Your task to perform on an android device: open the mobile data screen to see how much data has been used Image 0: 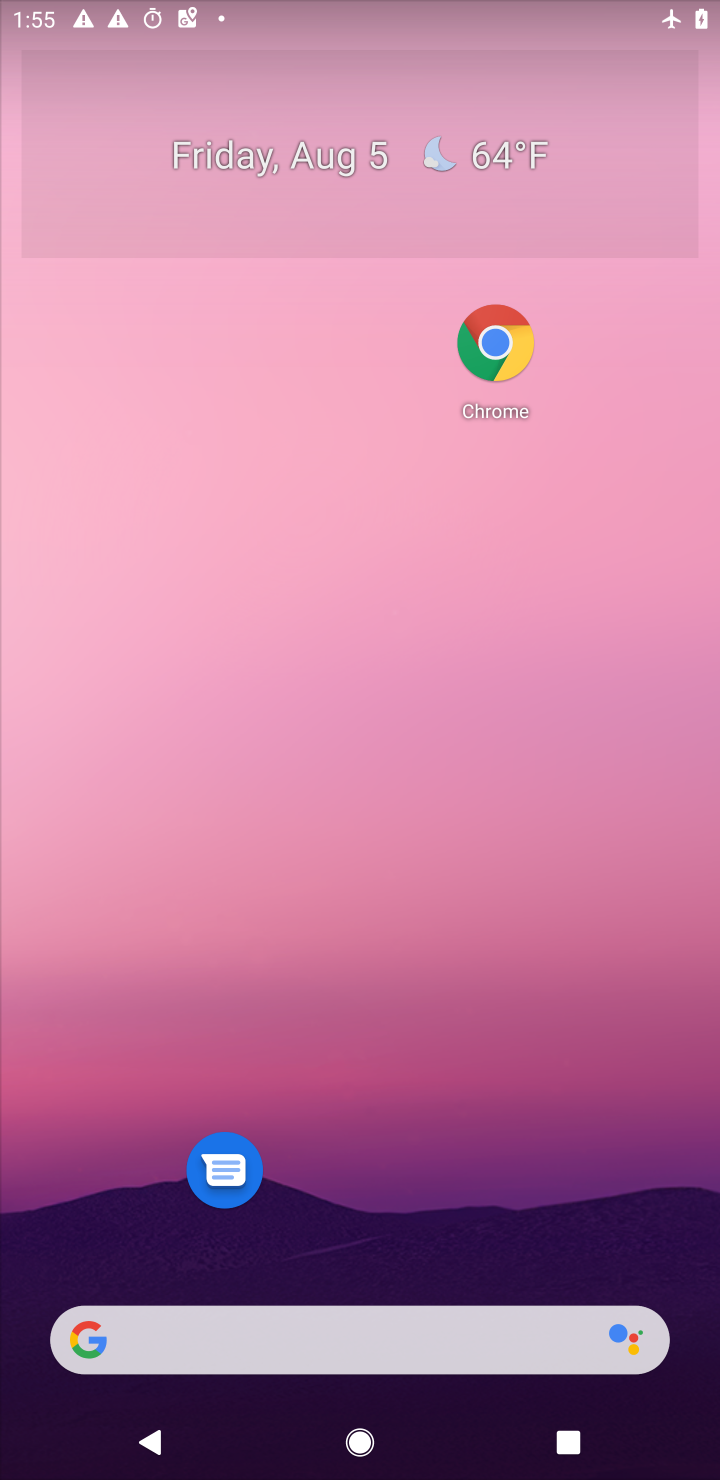
Step 0: drag from (333, 1025) to (344, 69)
Your task to perform on an android device: open the mobile data screen to see how much data has been used Image 1: 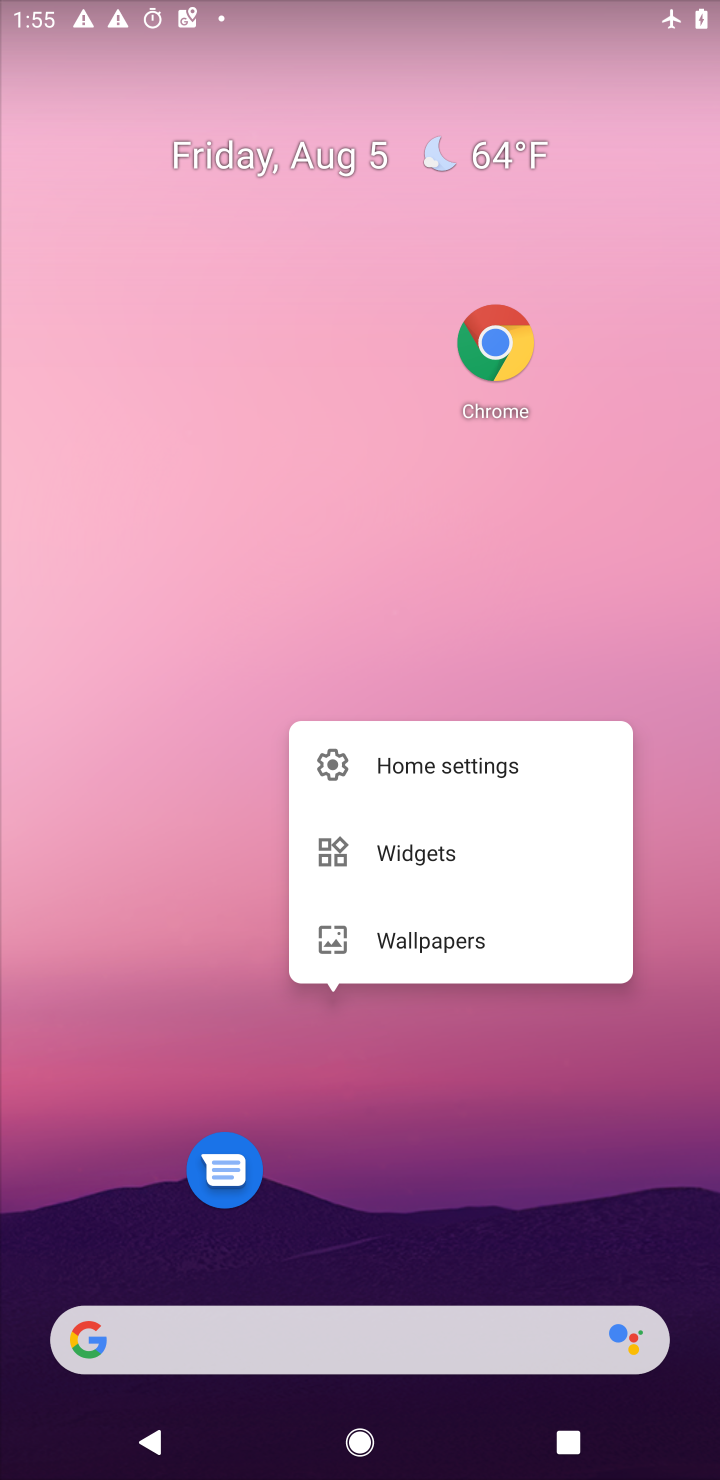
Step 1: click (421, 1178)
Your task to perform on an android device: open the mobile data screen to see how much data has been used Image 2: 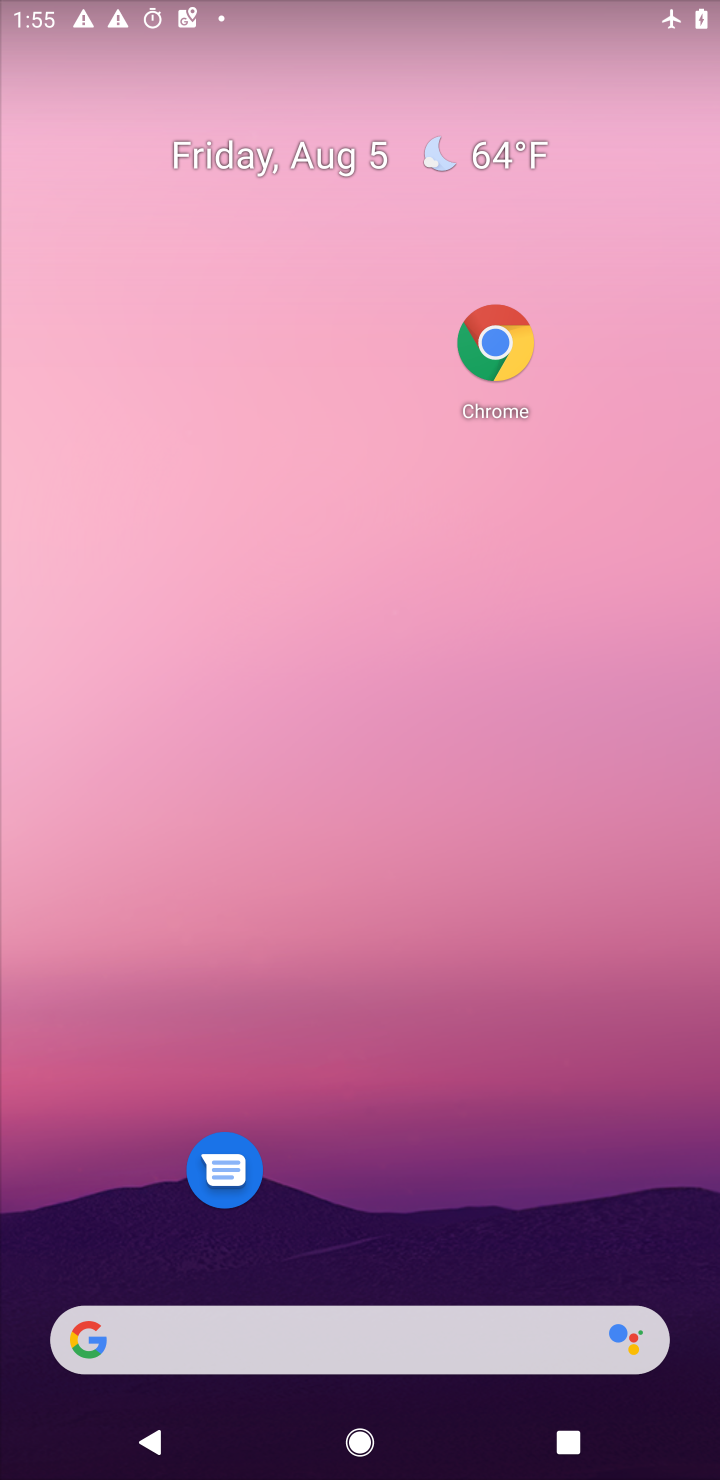
Step 2: drag from (335, 1135) to (361, 1)
Your task to perform on an android device: open the mobile data screen to see how much data has been used Image 3: 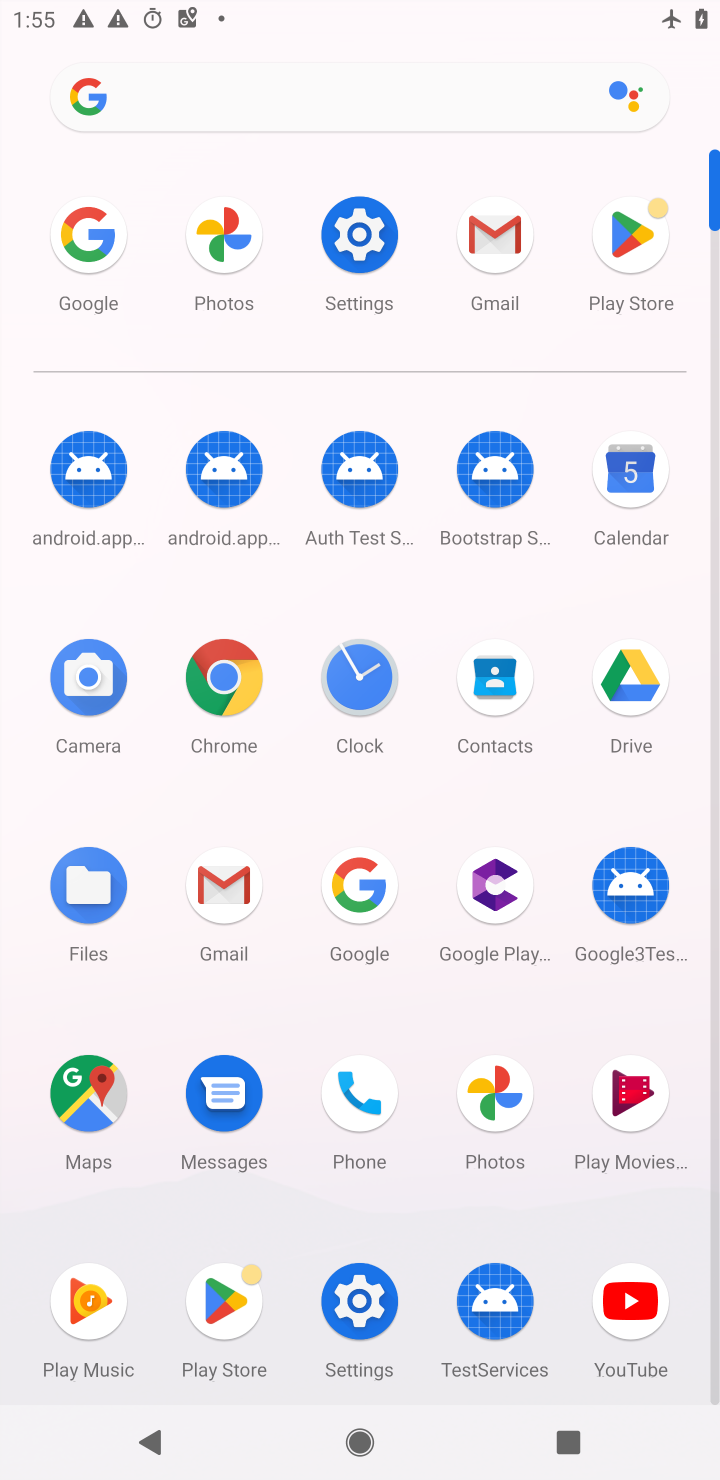
Step 3: click (371, 273)
Your task to perform on an android device: open the mobile data screen to see how much data has been used Image 4: 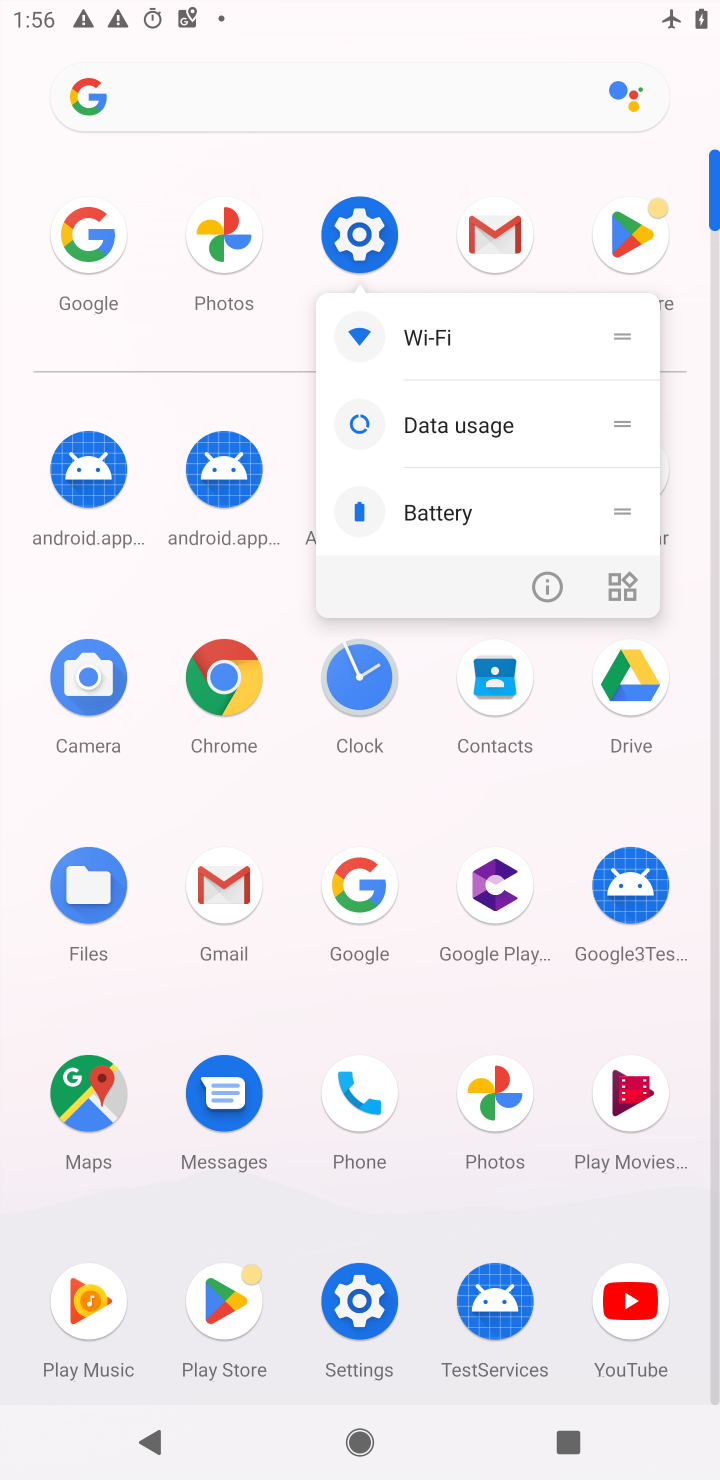
Step 4: click (373, 237)
Your task to perform on an android device: open the mobile data screen to see how much data has been used Image 5: 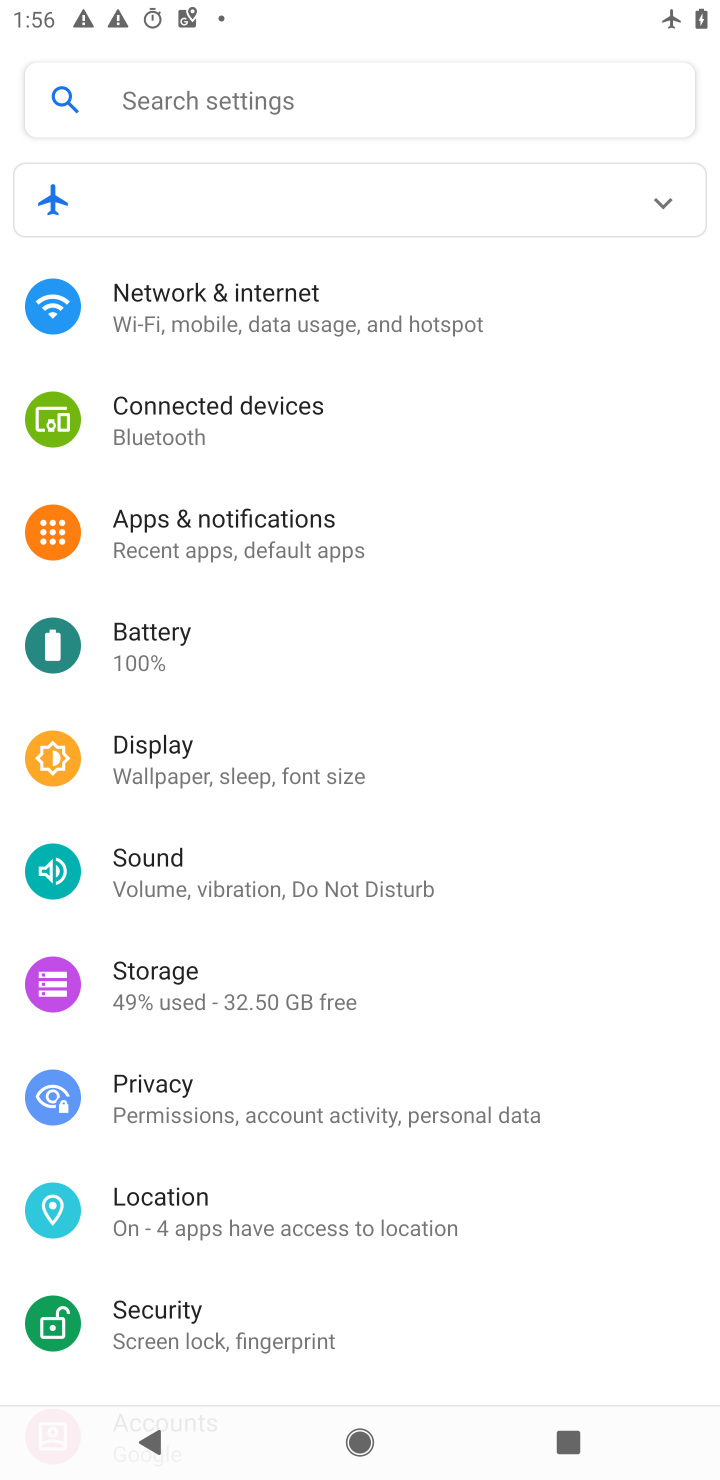
Step 5: click (268, 325)
Your task to perform on an android device: open the mobile data screen to see how much data has been used Image 6: 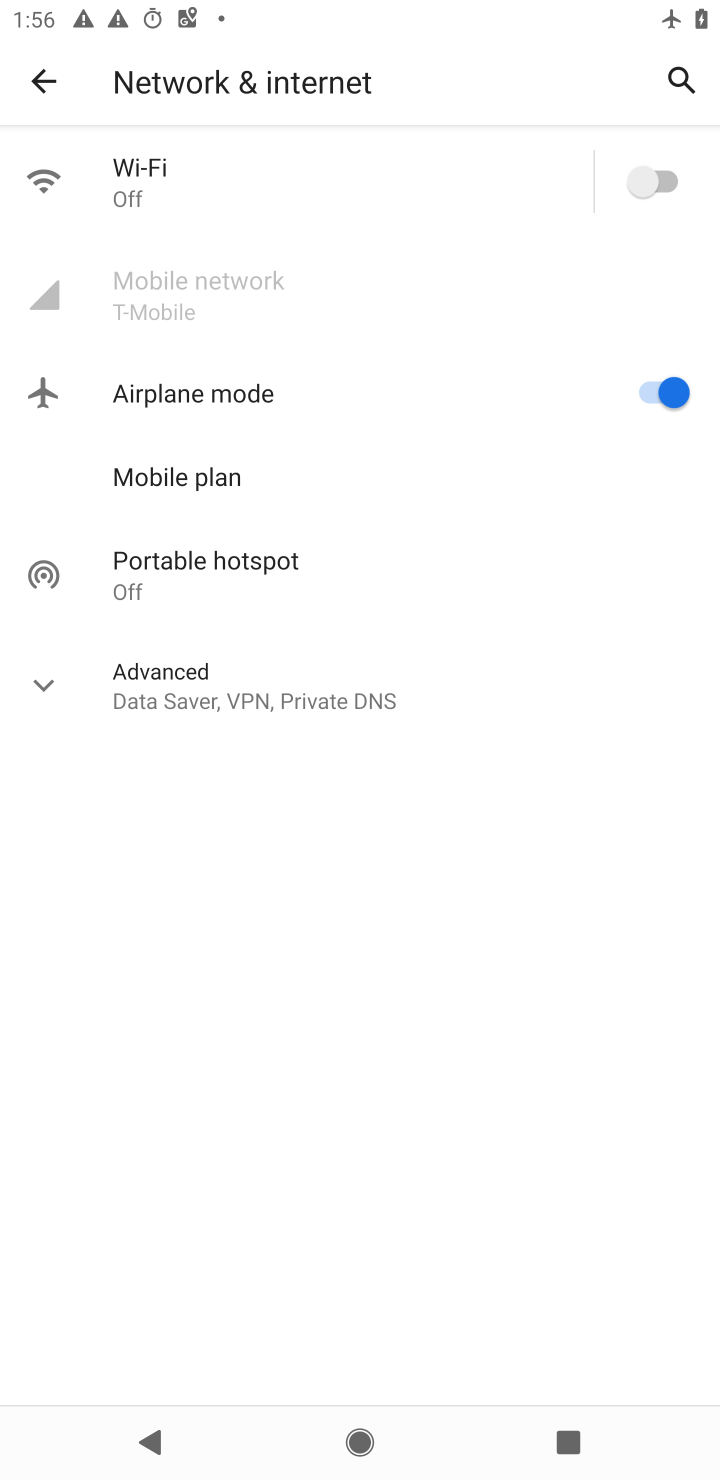
Step 6: click (690, 378)
Your task to perform on an android device: open the mobile data screen to see how much data has been used Image 7: 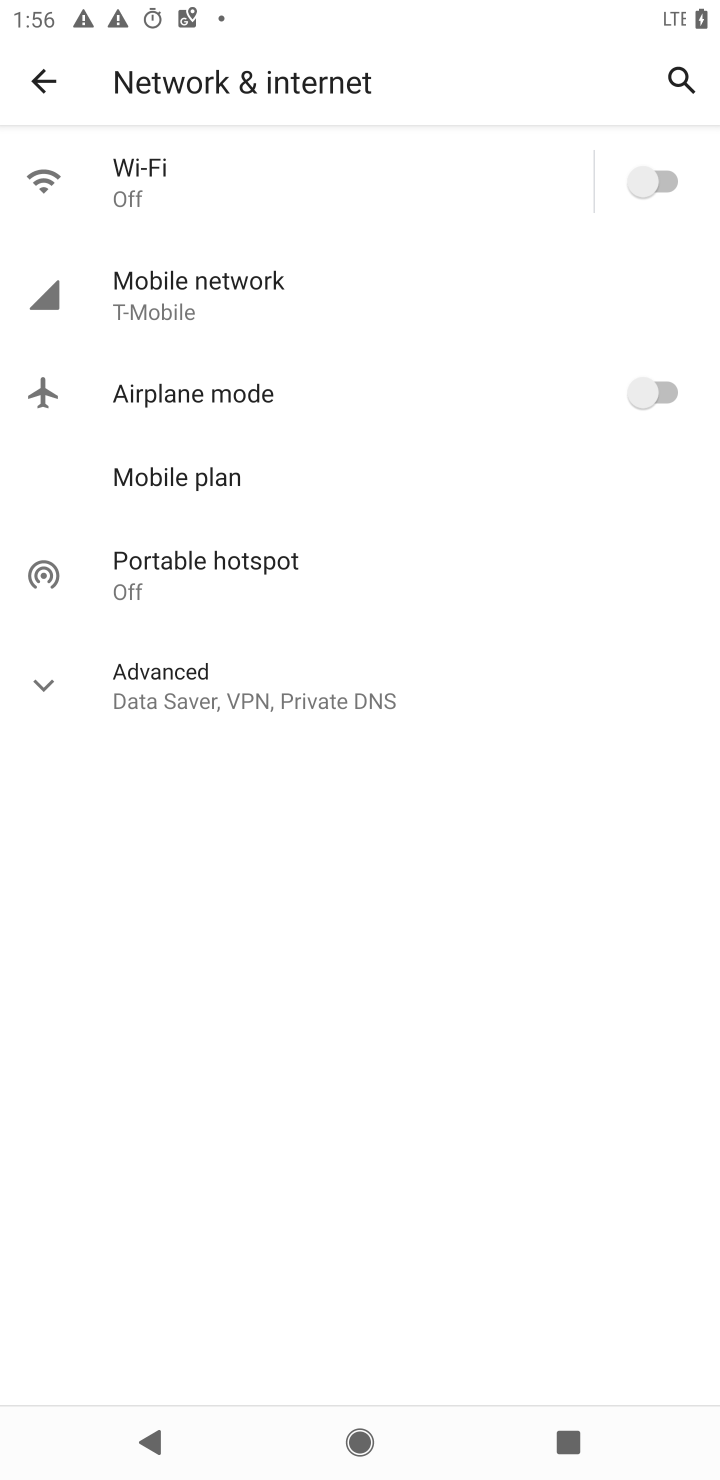
Step 7: click (478, 315)
Your task to perform on an android device: open the mobile data screen to see how much data has been used Image 8: 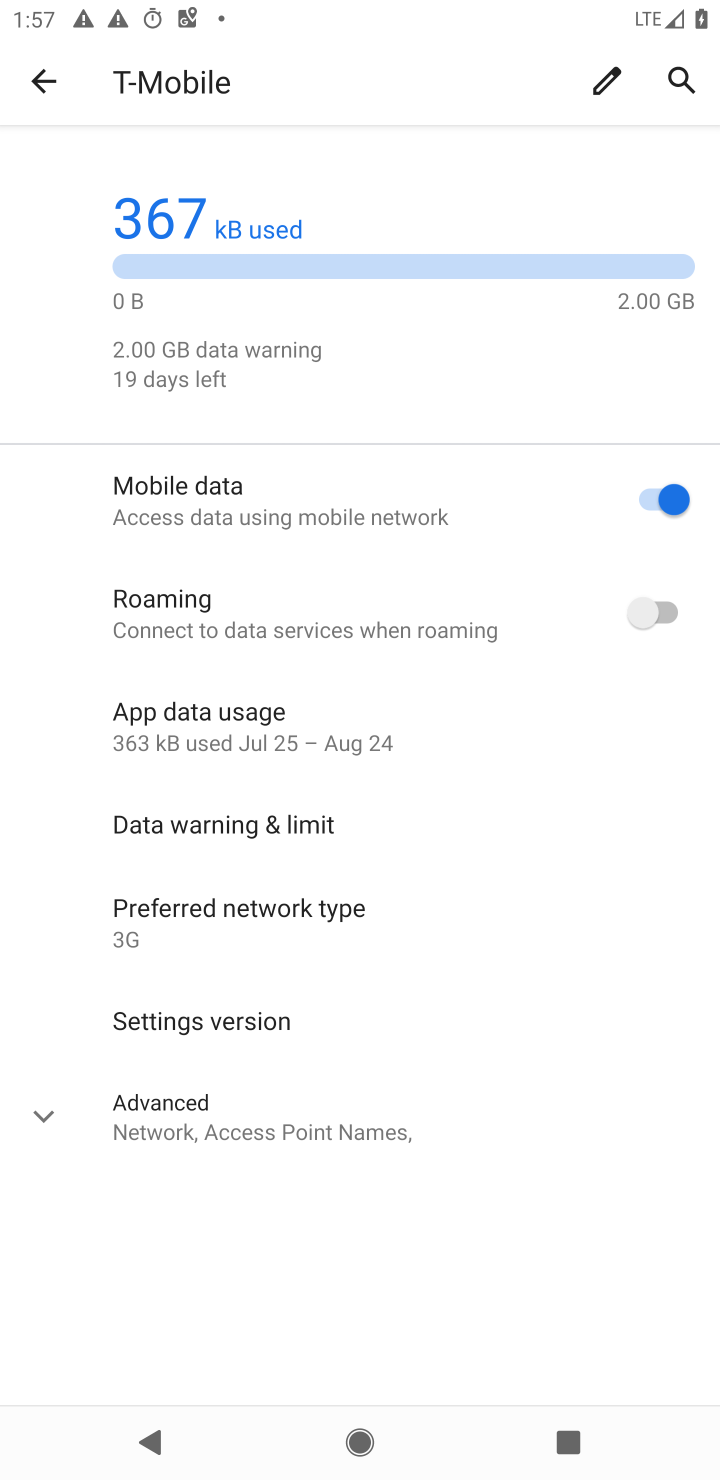
Step 8: click (255, 715)
Your task to perform on an android device: open the mobile data screen to see how much data has been used Image 9: 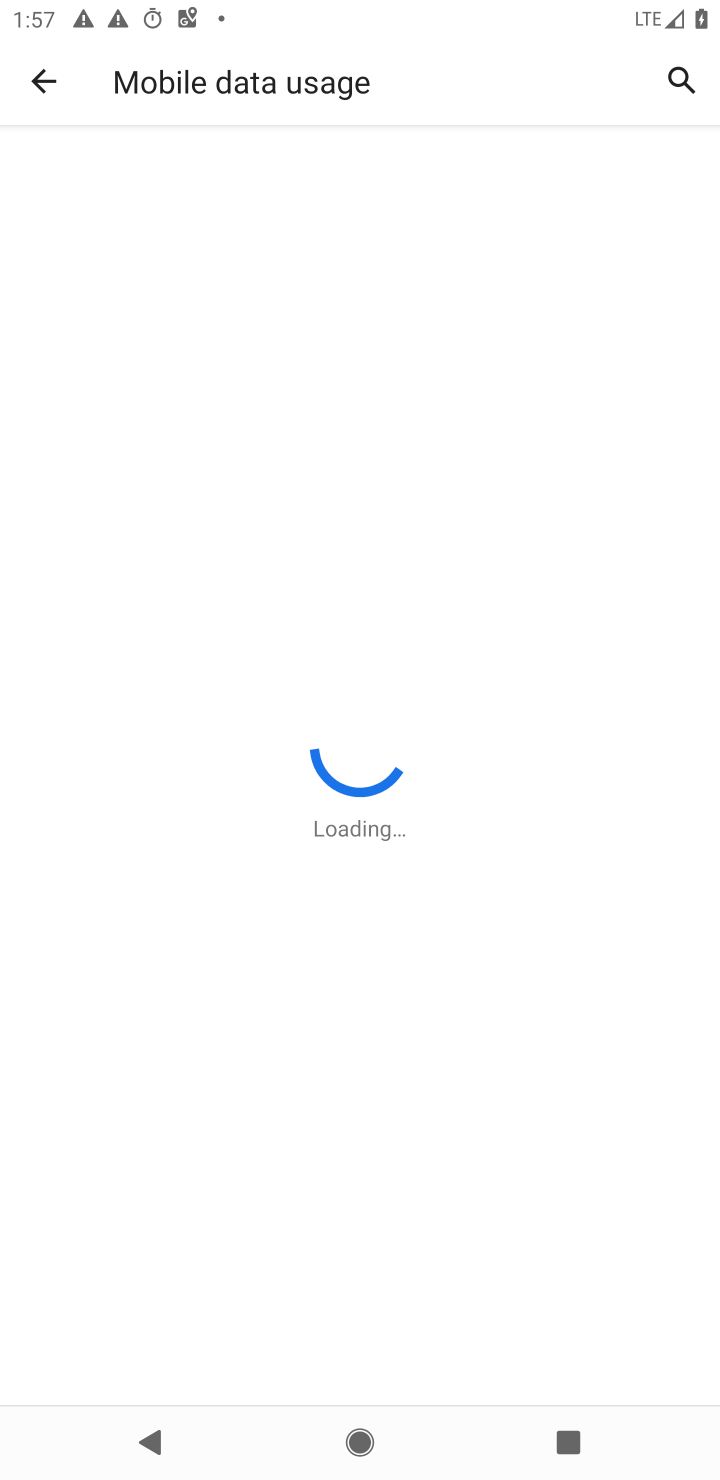
Step 9: task complete